Your task to perform on an android device: Turn on the flashlight Image 0: 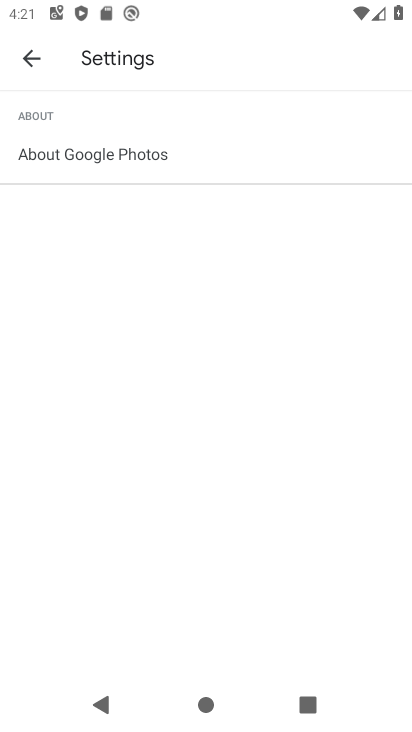
Step 0: drag from (277, 717) to (196, 63)
Your task to perform on an android device: Turn on the flashlight Image 1: 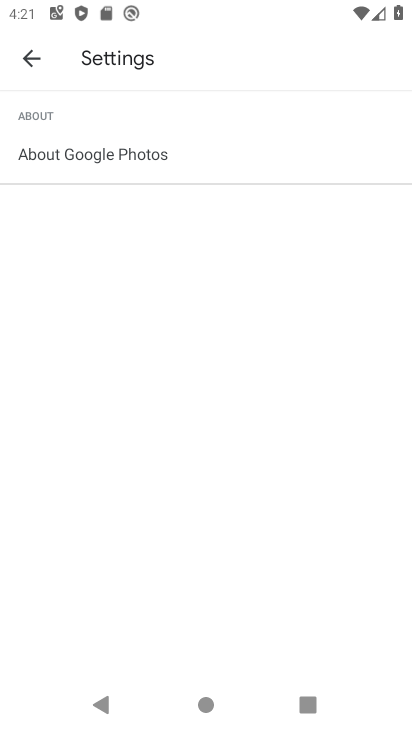
Step 1: click (136, 727)
Your task to perform on an android device: Turn on the flashlight Image 2: 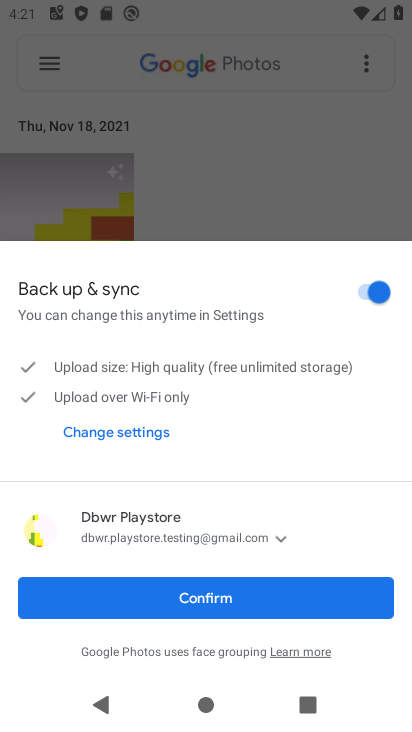
Step 2: task complete